Your task to perform on an android device: Open Yahoo.com Image 0: 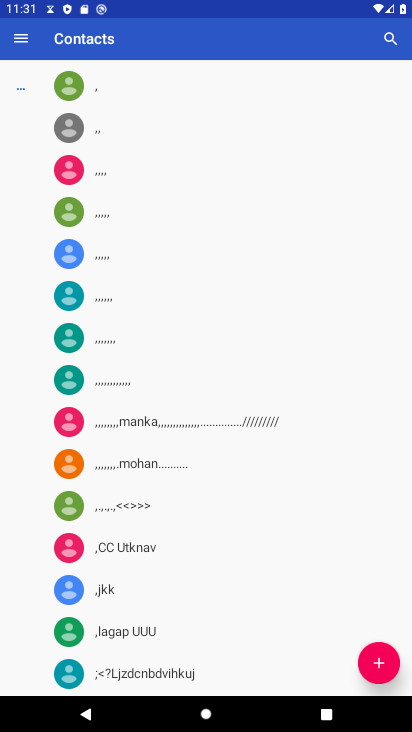
Step 0: press home button
Your task to perform on an android device: Open Yahoo.com Image 1: 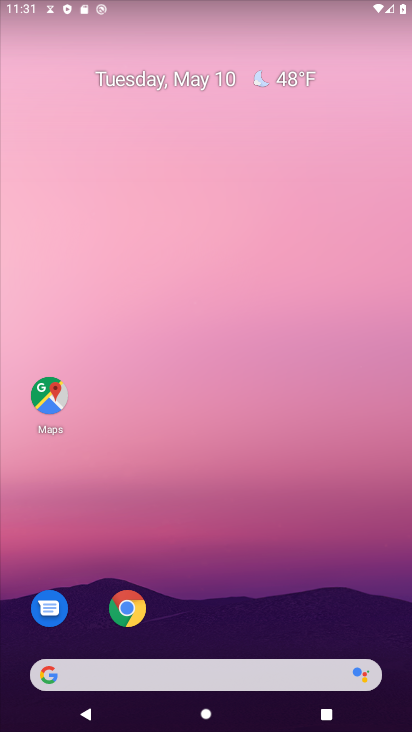
Step 1: click (130, 614)
Your task to perform on an android device: Open Yahoo.com Image 2: 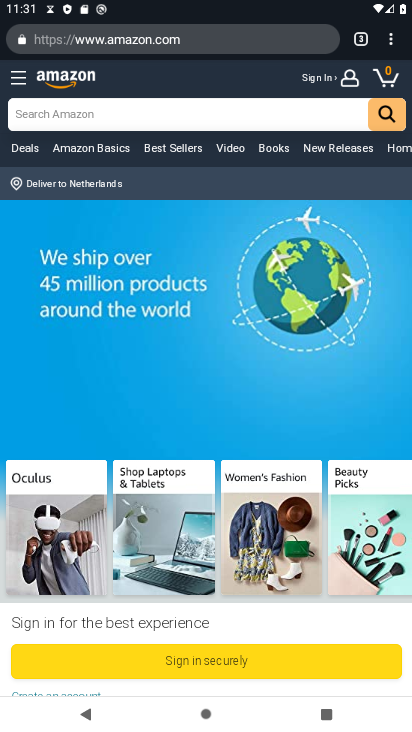
Step 2: click (359, 39)
Your task to perform on an android device: Open Yahoo.com Image 3: 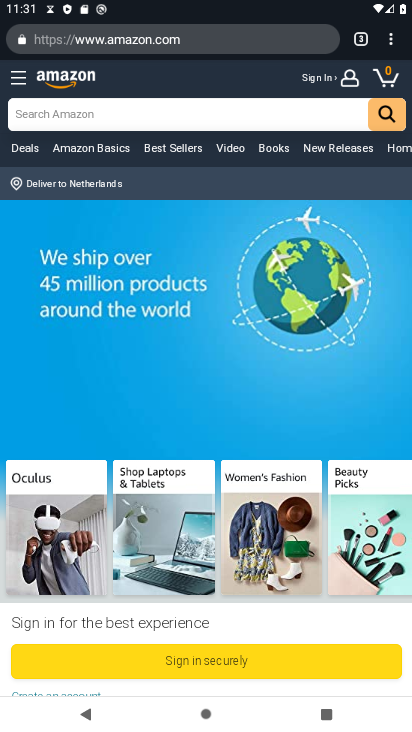
Step 3: click (359, 39)
Your task to perform on an android device: Open Yahoo.com Image 4: 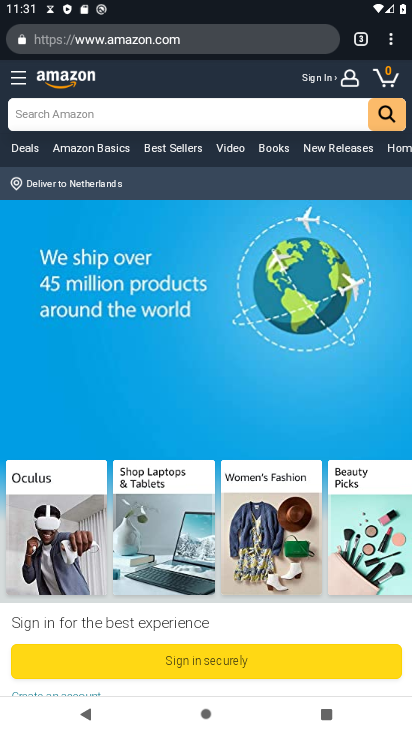
Step 4: click (359, 39)
Your task to perform on an android device: Open Yahoo.com Image 5: 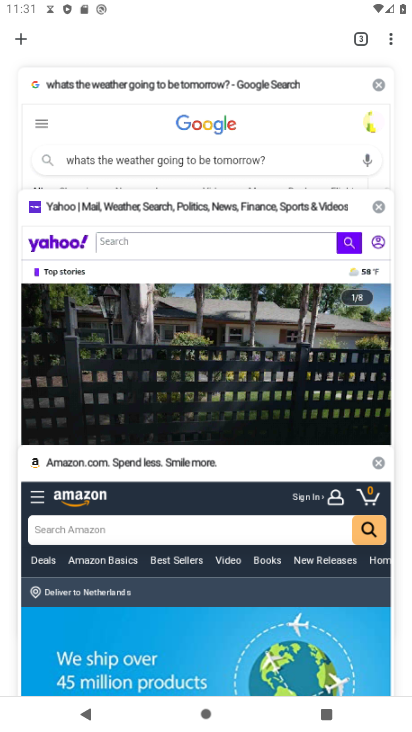
Step 5: click (191, 266)
Your task to perform on an android device: Open Yahoo.com Image 6: 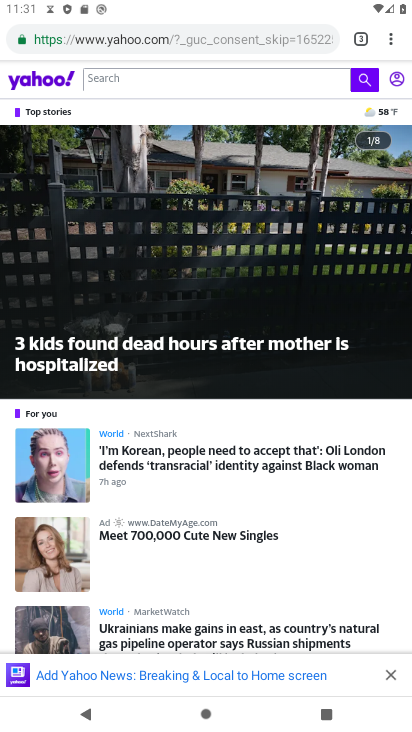
Step 6: task complete